Your task to perform on an android device: What is the recent news? Image 0: 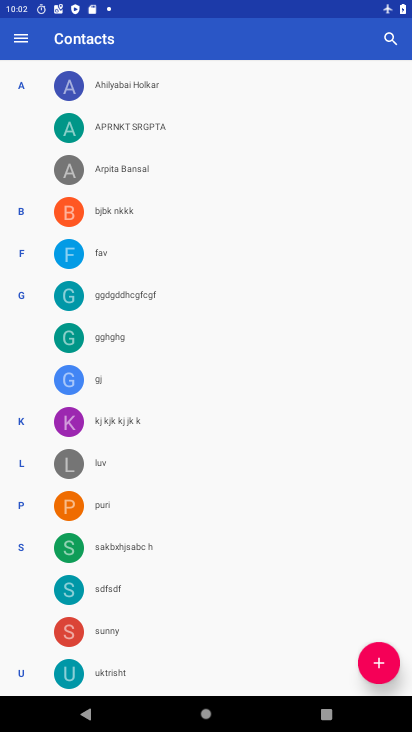
Step 0: press home button
Your task to perform on an android device: What is the recent news? Image 1: 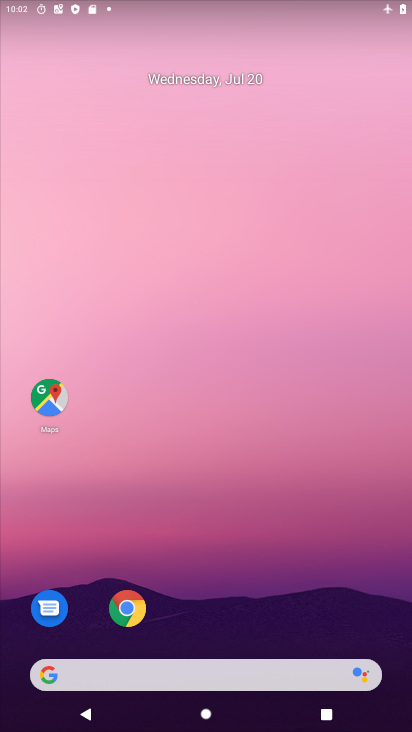
Step 1: click (237, 671)
Your task to perform on an android device: What is the recent news? Image 2: 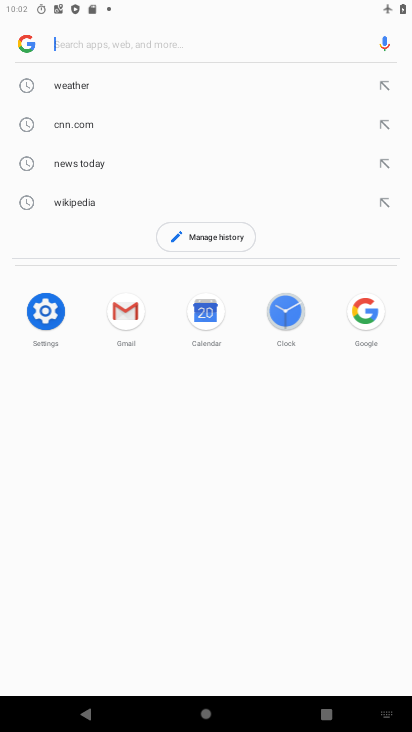
Step 2: type "recent news"
Your task to perform on an android device: What is the recent news? Image 3: 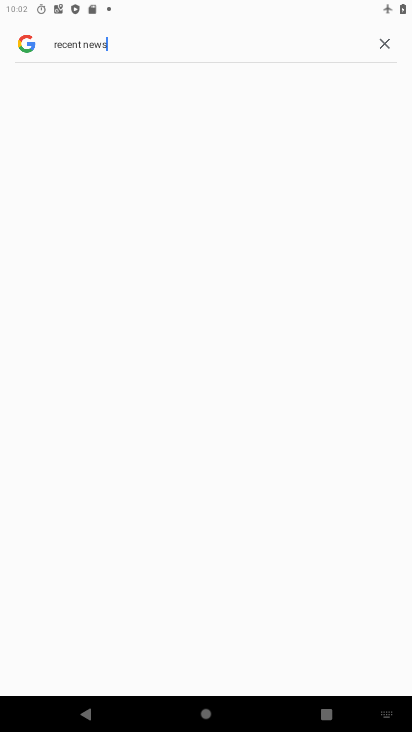
Step 3: task complete